Your task to perform on an android device: When is my next meeting? Image 0: 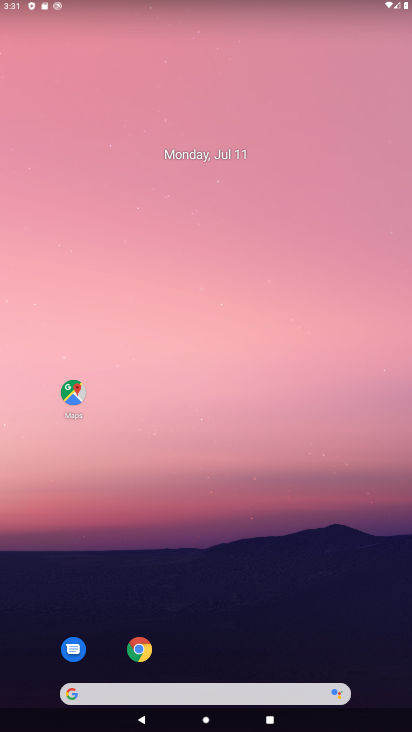
Step 0: drag from (150, 536) to (205, 217)
Your task to perform on an android device: When is my next meeting? Image 1: 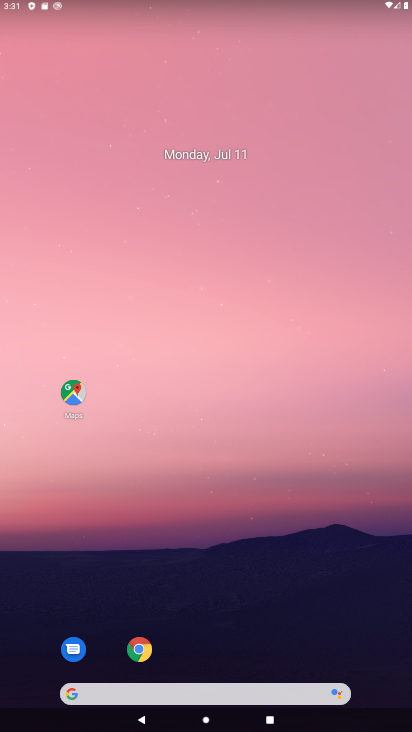
Step 1: drag from (164, 624) to (181, 71)
Your task to perform on an android device: When is my next meeting? Image 2: 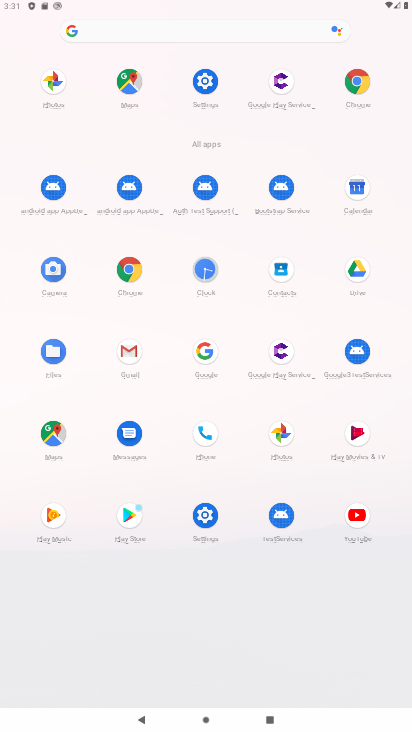
Step 2: click (353, 184)
Your task to perform on an android device: When is my next meeting? Image 3: 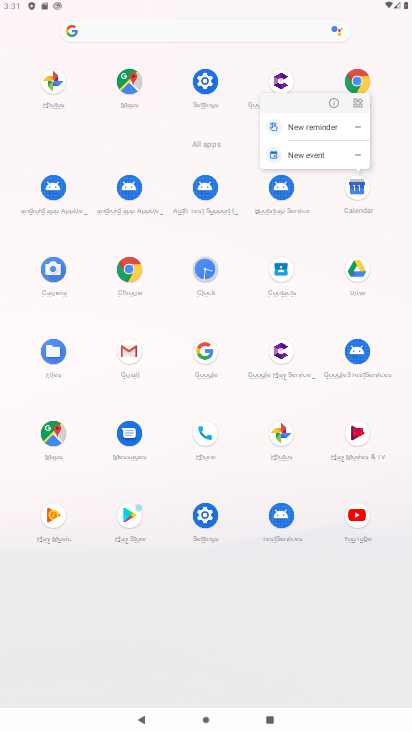
Step 3: click (328, 95)
Your task to perform on an android device: When is my next meeting? Image 4: 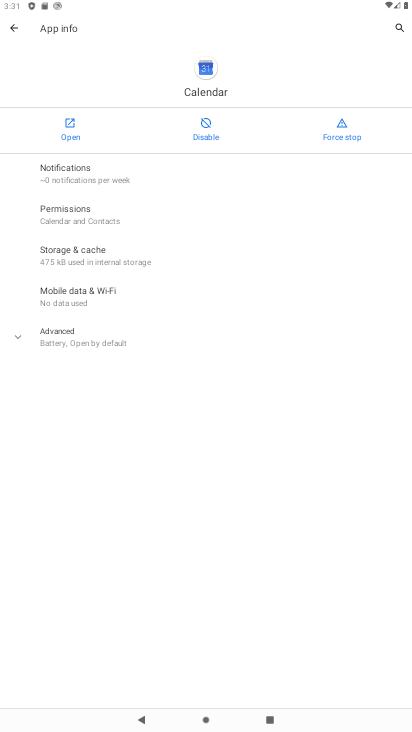
Step 4: click (67, 132)
Your task to perform on an android device: When is my next meeting? Image 5: 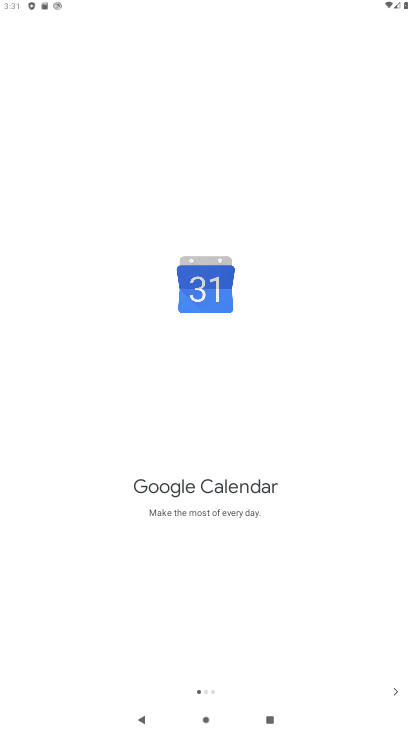
Step 5: click (393, 688)
Your task to perform on an android device: When is my next meeting? Image 6: 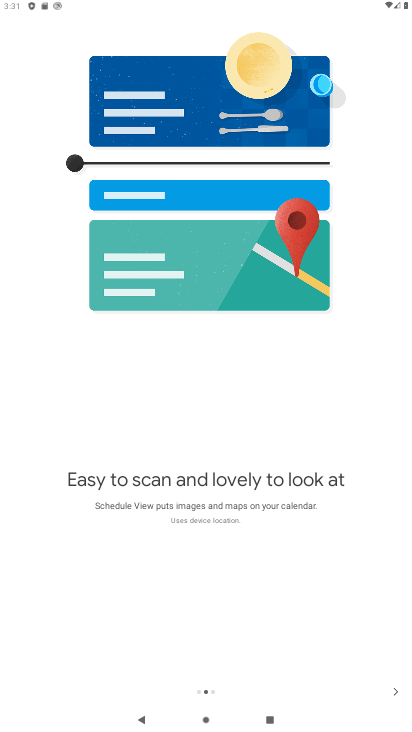
Step 6: click (386, 690)
Your task to perform on an android device: When is my next meeting? Image 7: 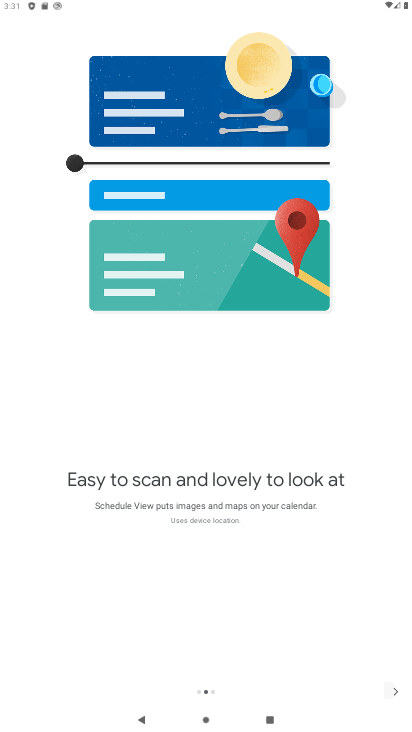
Step 7: click (389, 689)
Your task to perform on an android device: When is my next meeting? Image 8: 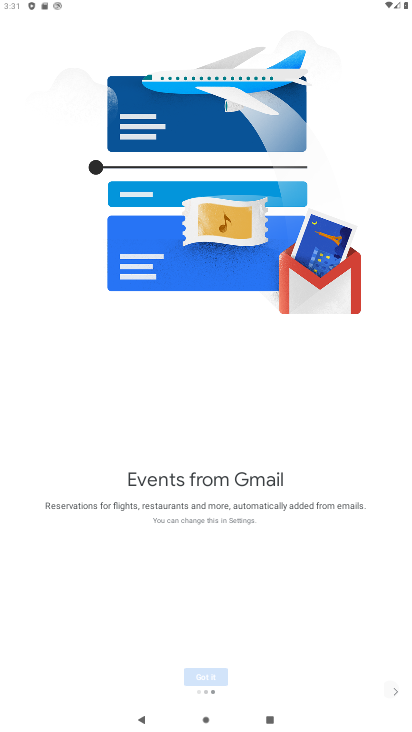
Step 8: click (389, 689)
Your task to perform on an android device: When is my next meeting? Image 9: 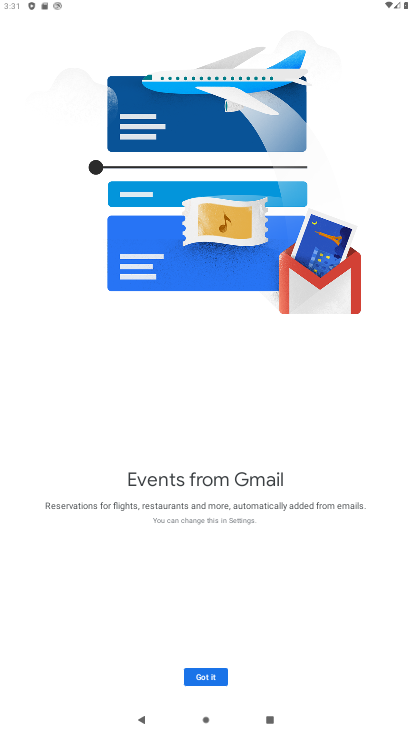
Step 9: click (389, 689)
Your task to perform on an android device: When is my next meeting? Image 10: 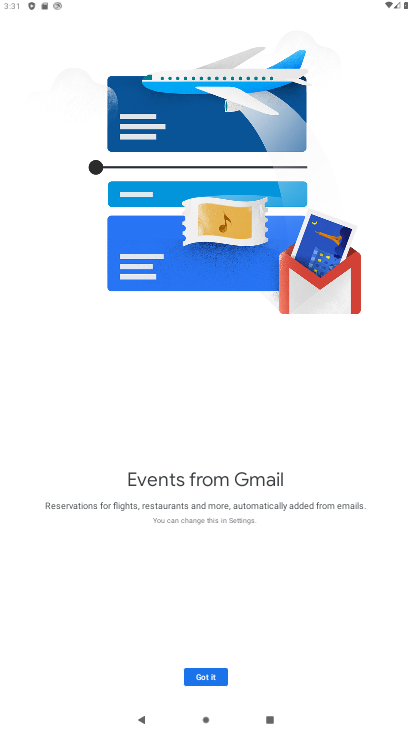
Step 10: click (197, 670)
Your task to perform on an android device: When is my next meeting? Image 11: 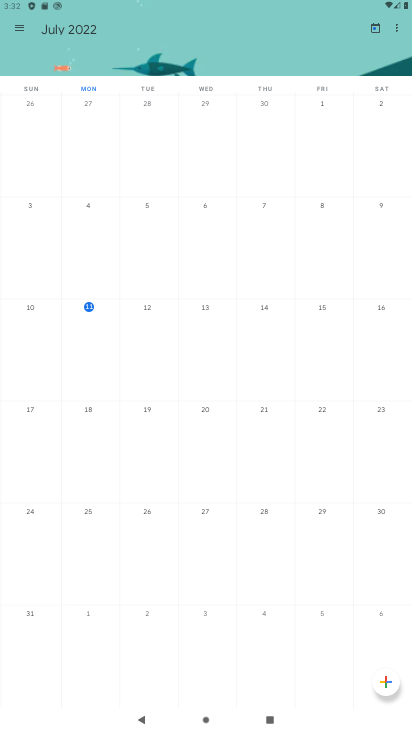
Step 11: click (89, 306)
Your task to perform on an android device: When is my next meeting? Image 12: 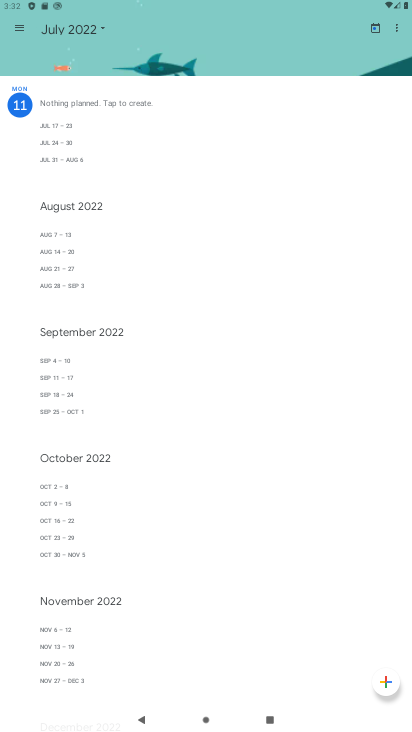
Step 12: click (28, 100)
Your task to perform on an android device: When is my next meeting? Image 13: 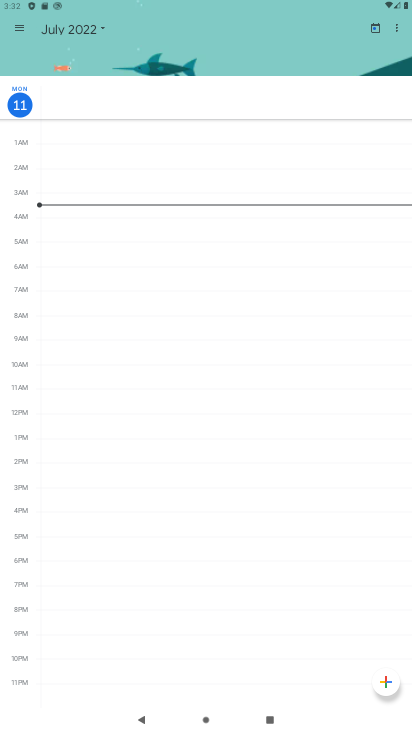
Step 13: click (58, 107)
Your task to perform on an android device: When is my next meeting? Image 14: 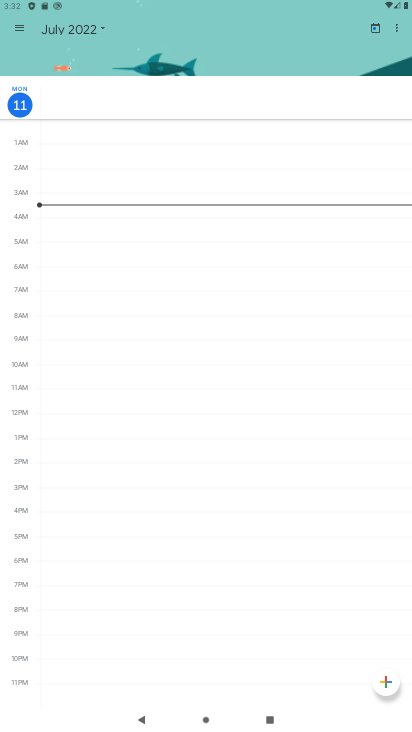
Step 14: task complete